Your task to perform on an android device: What's on my calendar today? Image 0: 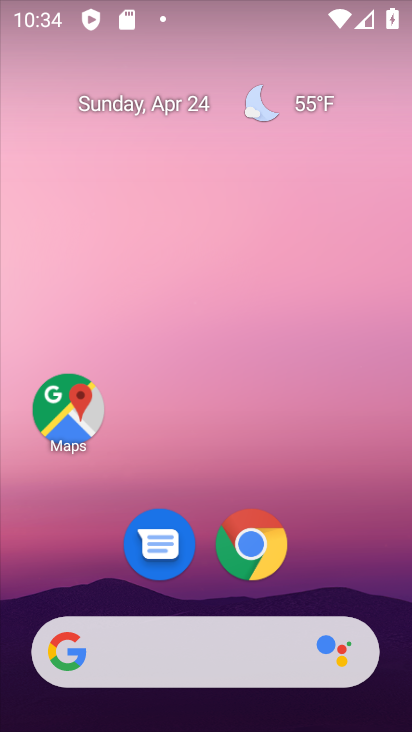
Step 0: drag from (339, 461) to (311, 219)
Your task to perform on an android device: What's on my calendar today? Image 1: 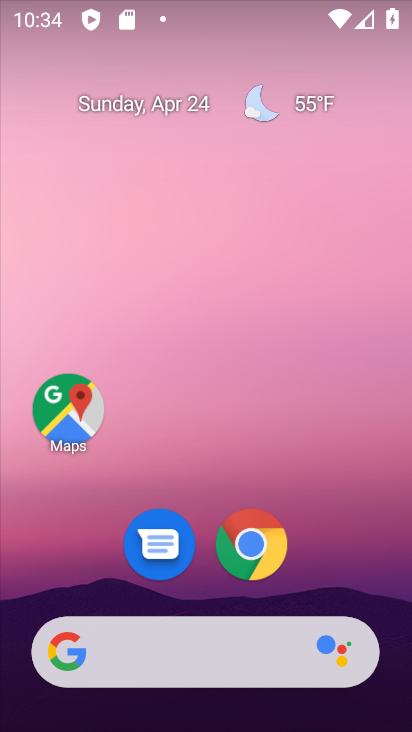
Step 1: drag from (334, 539) to (264, 71)
Your task to perform on an android device: What's on my calendar today? Image 2: 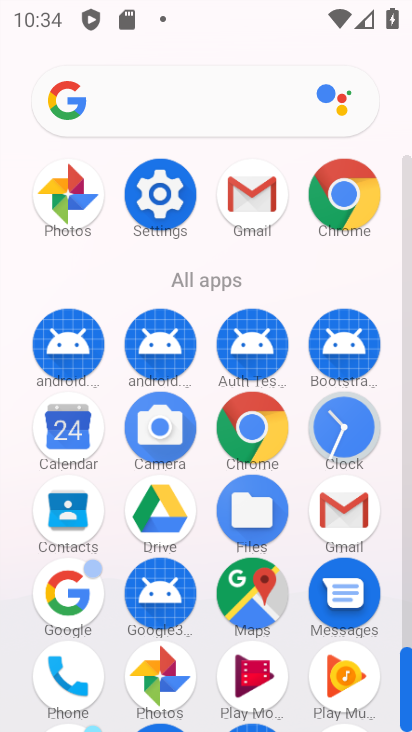
Step 2: click (86, 439)
Your task to perform on an android device: What's on my calendar today? Image 3: 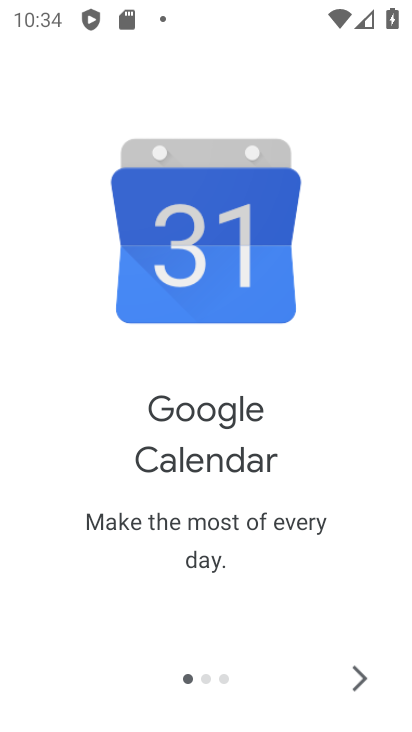
Step 3: click (355, 679)
Your task to perform on an android device: What's on my calendar today? Image 4: 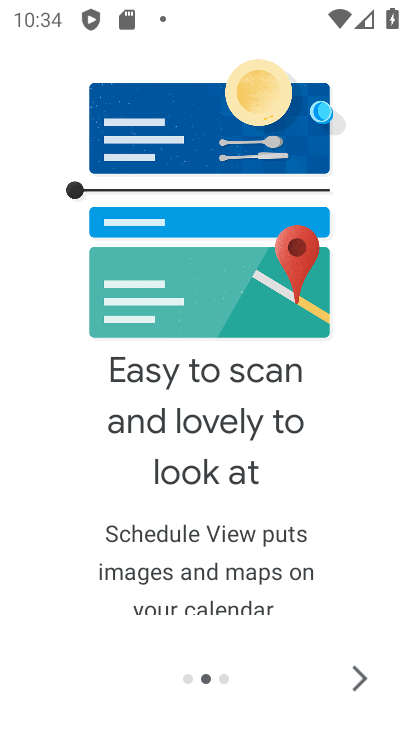
Step 4: click (355, 679)
Your task to perform on an android device: What's on my calendar today? Image 5: 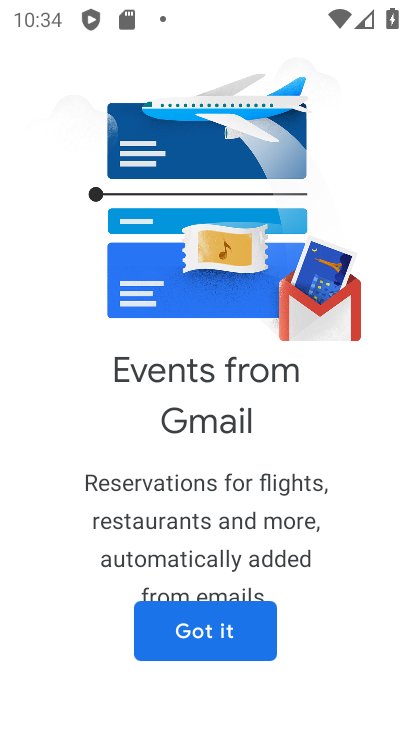
Step 5: click (219, 652)
Your task to perform on an android device: What's on my calendar today? Image 6: 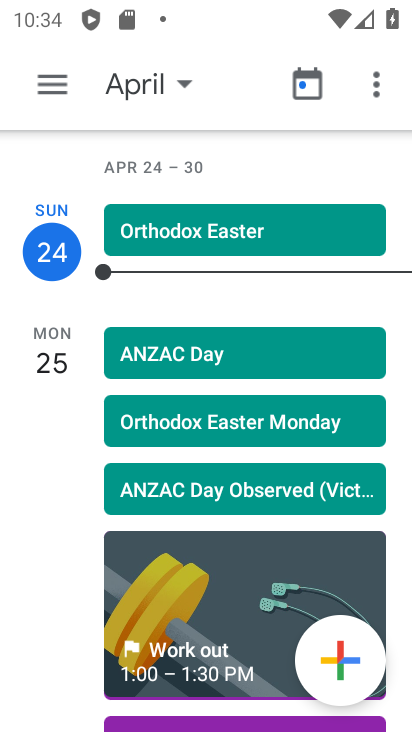
Step 6: click (56, 85)
Your task to perform on an android device: What's on my calendar today? Image 7: 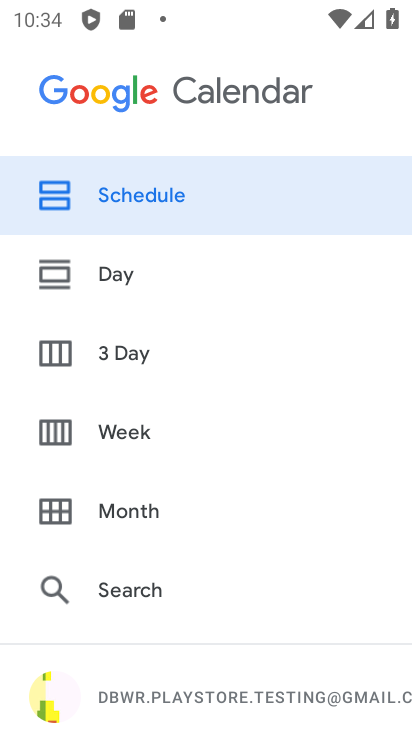
Step 7: click (127, 203)
Your task to perform on an android device: What's on my calendar today? Image 8: 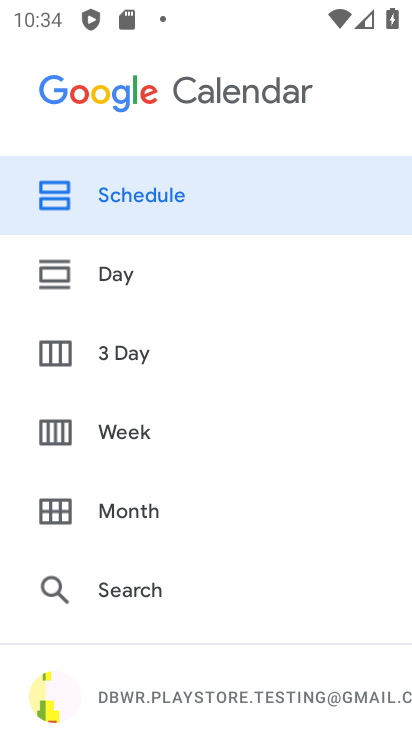
Step 8: click (215, 202)
Your task to perform on an android device: What's on my calendar today? Image 9: 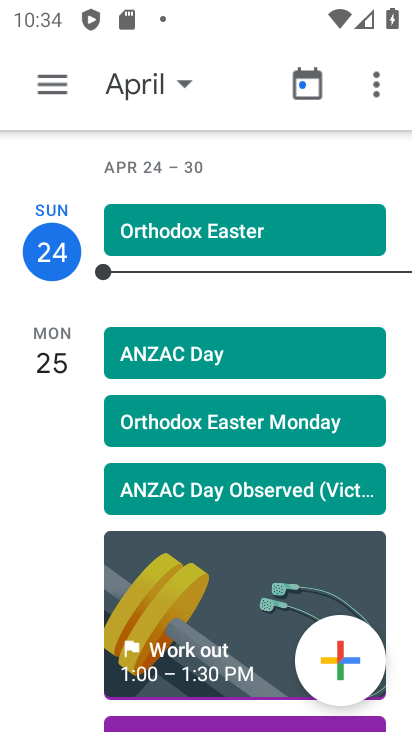
Step 9: press back button
Your task to perform on an android device: What's on my calendar today? Image 10: 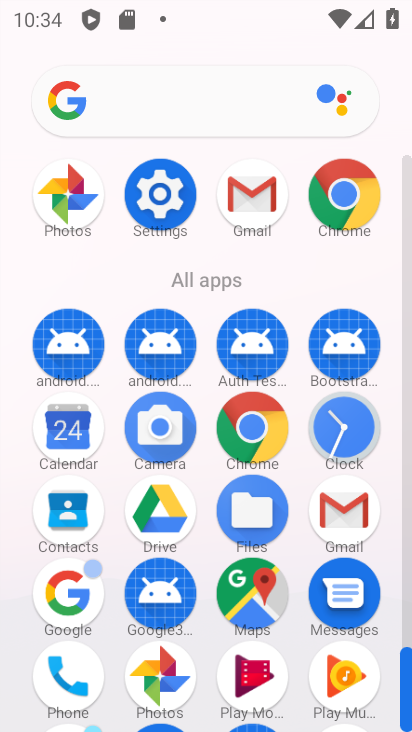
Step 10: click (69, 435)
Your task to perform on an android device: What's on my calendar today? Image 11: 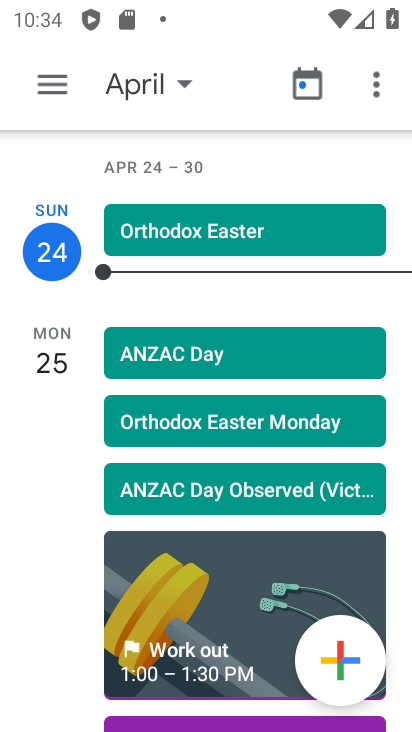
Step 11: task complete